Your task to perform on an android device: Show me recent news Image 0: 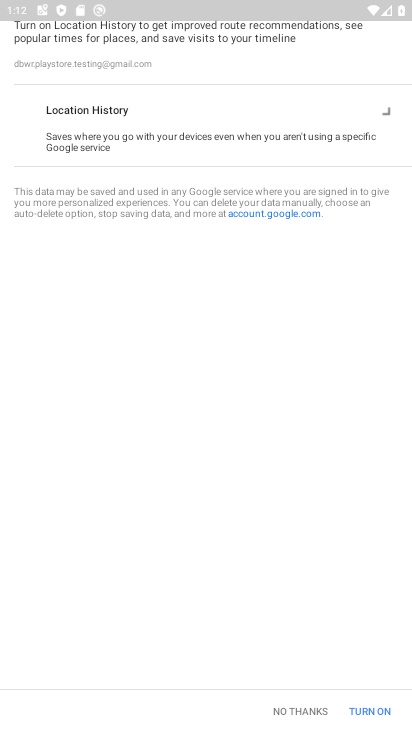
Step 0: press home button
Your task to perform on an android device: Show me recent news Image 1: 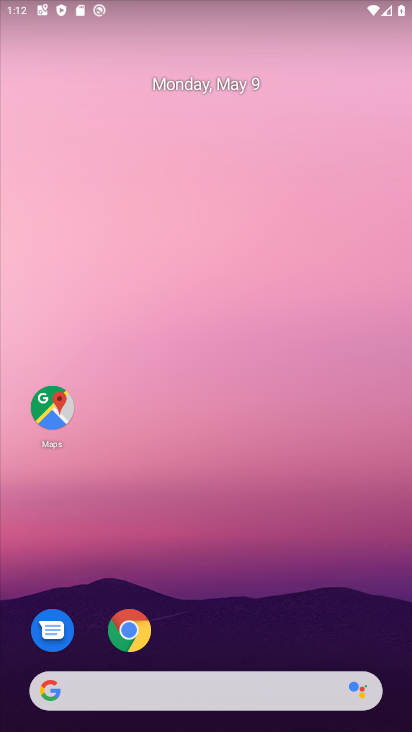
Step 1: drag from (290, 696) to (215, 330)
Your task to perform on an android device: Show me recent news Image 2: 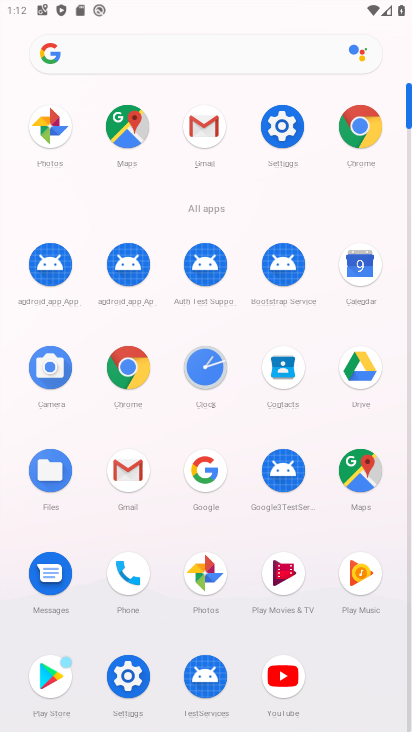
Step 2: click (121, 59)
Your task to perform on an android device: Show me recent news Image 3: 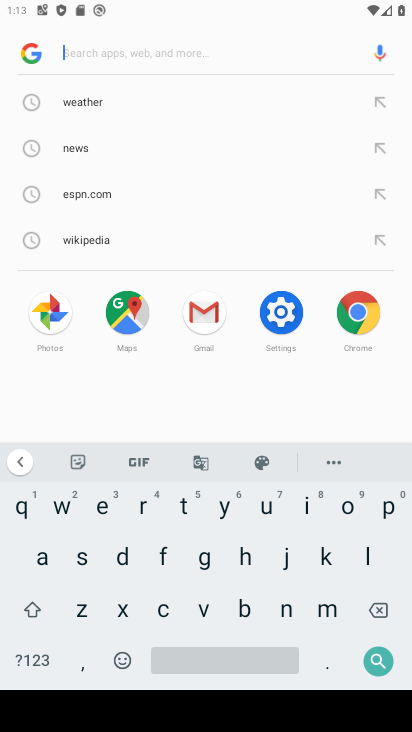
Step 3: click (139, 513)
Your task to perform on an android device: Show me recent news Image 4: 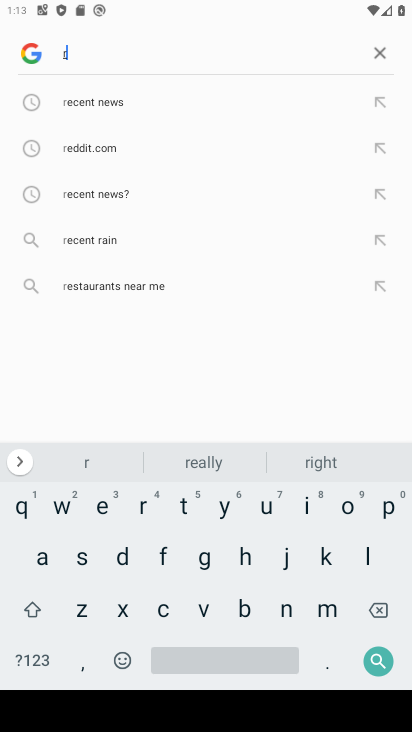
Step 4: click (100, 98)
Your task to perform on an android device: Show me recent news Image 5: 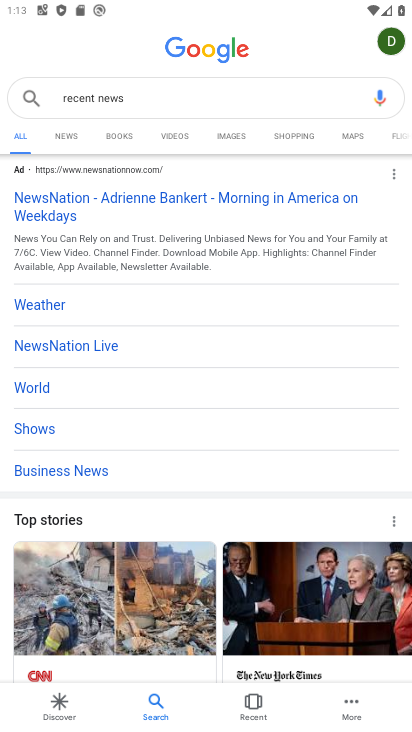
Step 5: task complete